Your task to perform on an android device: Open Chrome and go to the settings page Image 0: 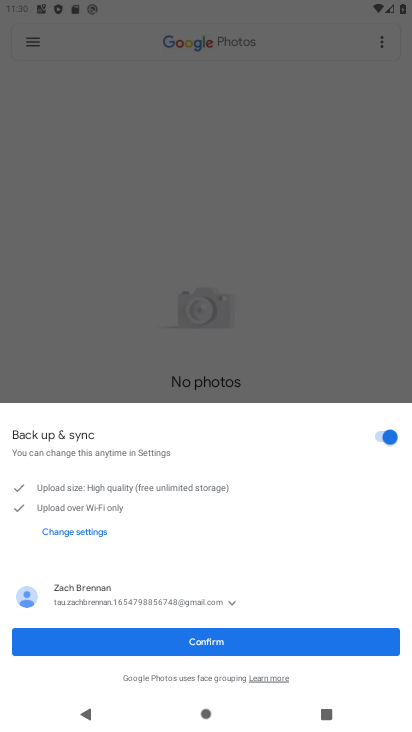
Step 0: press home button
Your task to perform on an android device: Open Chrome and go to the settings page Image 1: 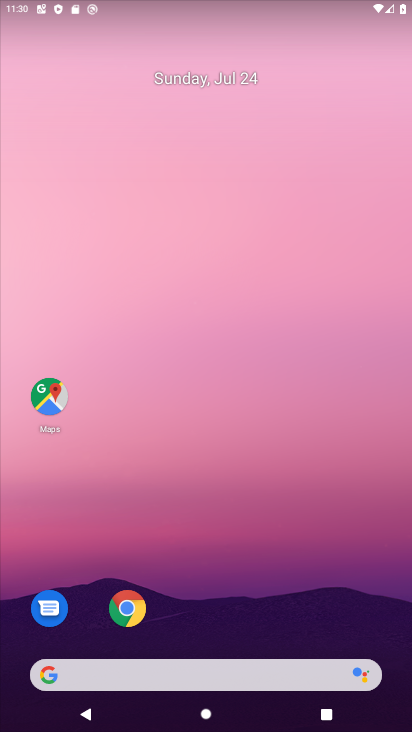
Step 1: click (132, 611)
Your task to perform on an android device: Open Chrome and go to the settings page Image 2: 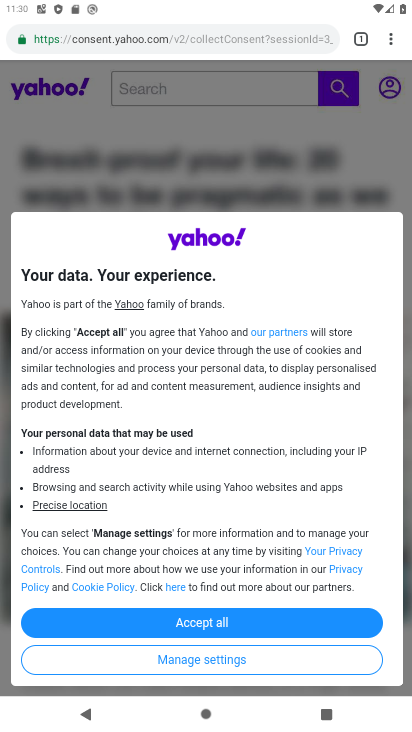
Step 2: task complete